Your task to perform on an android device: Go to settings Image 0: 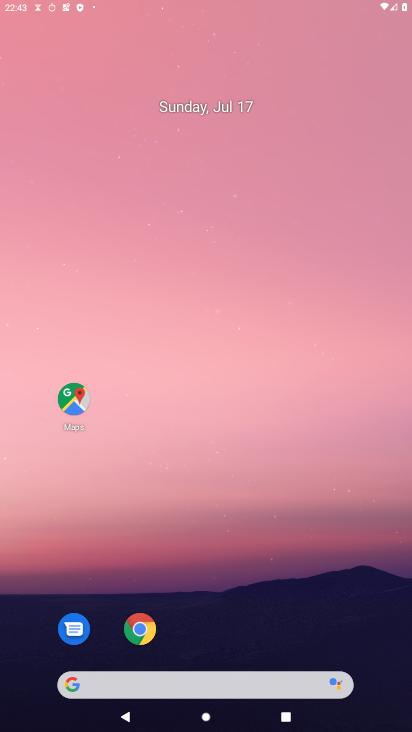
Step 0: drag from (227, 652) to (216, 96)
Your task to perform on an android device: Go to settings Image 1: 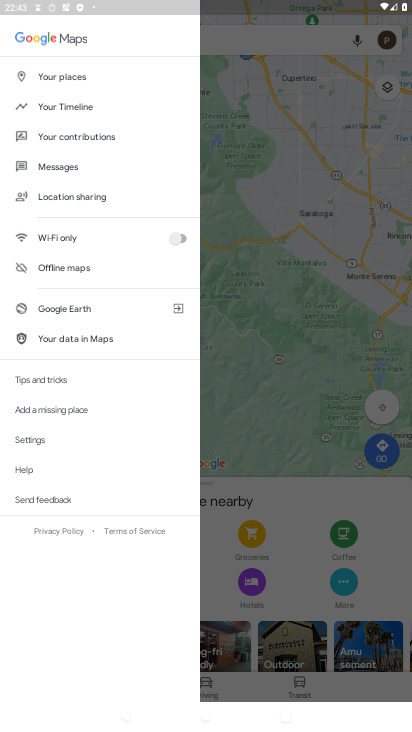
Step 1: press home button
Your task to perform on an android device: Go to settings Image 2: 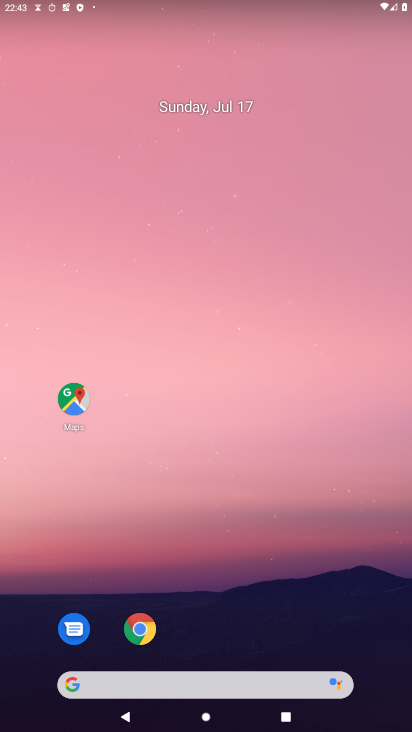
Step 2: drag from (221, 728) to (218, 63)
Your task to perform on an android device: Go to settings Image 3: 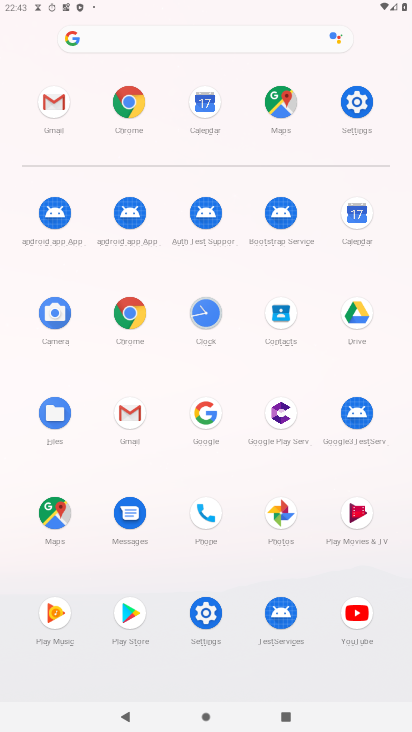
Step 3: click (361, 96)
Your task to perform on an android device: Go to settings Image 4: 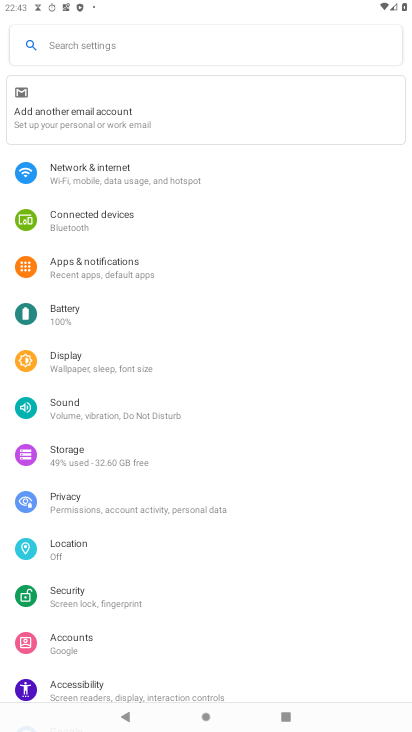
Step 4: task complete